Your task to perform on an android device: change alarm snooze length Image 0: 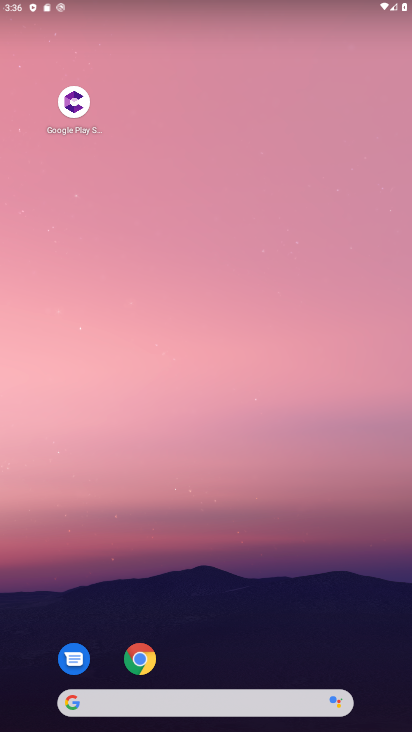
Step 0: drag from (230, 666) to (342, 119)
Your task to perform on an android device: change alarm snooze length Image 1: 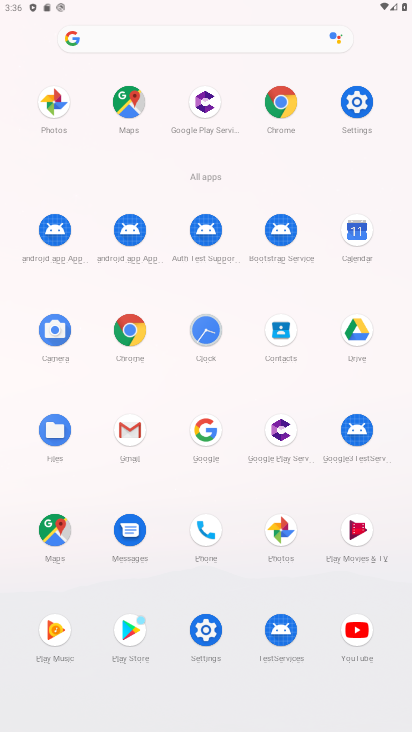
Step 1: click (224, 332)
Your task to perform on an android device: change alarm snooze length Image 2: 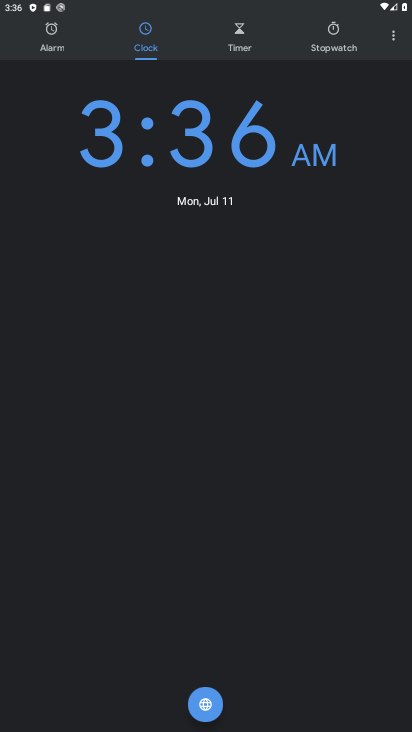
Step 2: click (388, 23)
Your task to perform on an android device: change alarm snooze length Image 3: 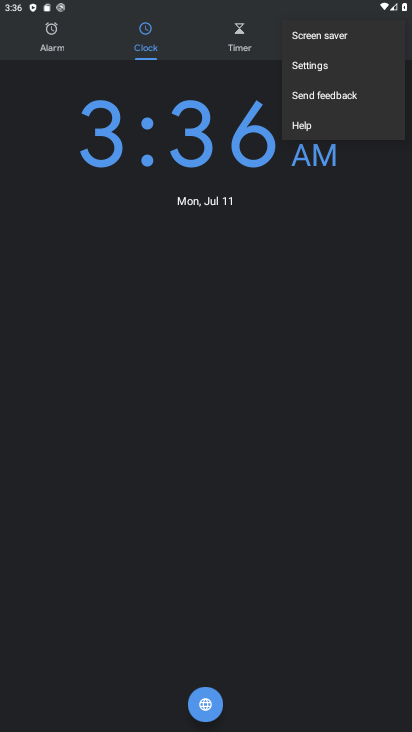
Step 3: click (348, 61)
Your task to perform on an android device: change alarm snooze length Image 4: 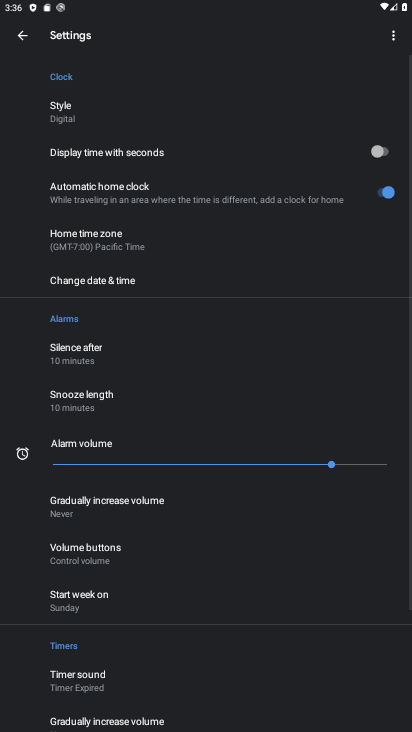
Step 4: drag from (172, 645) to (255, 264)
Your task to perform on an android device: change alarm snooze length Image 5: 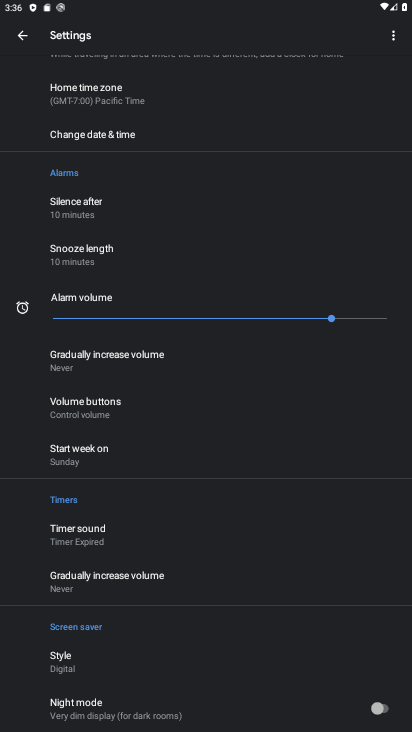
Step 5: click (149, 251)
Your task to perform on an android device: change alarm snooze length Image 6: 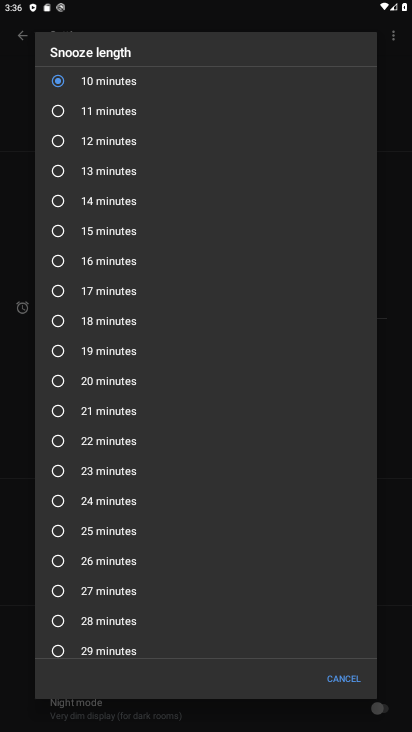
Step 6: click (123, 382)
Your task to perform on an android device: change alarm snooze length Image 7: 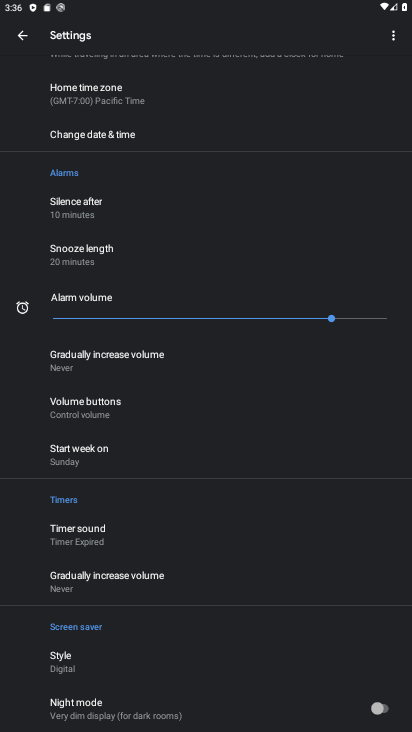
Step 7: task complete